Your task to perform on an android device: Open the web browser Image 0: 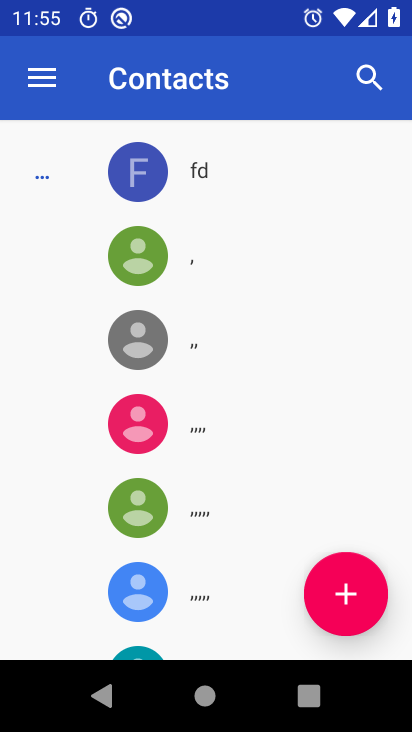
Step 0: press home button
Your task to perform on an android device: Open the web browser Image 1: 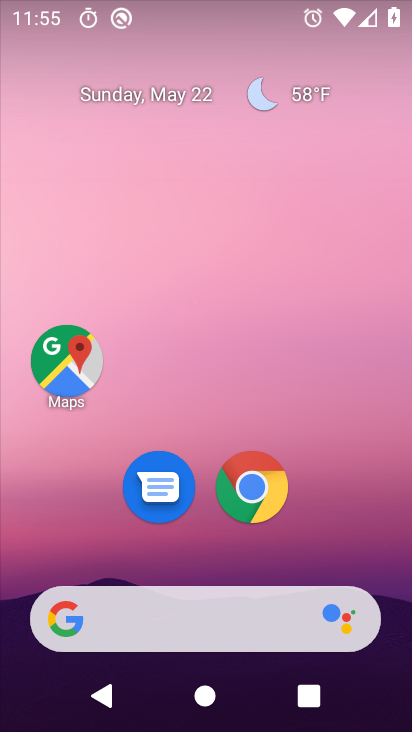
Step 1: drag from (359, 524) to (359, 204)
Your task to perform on an android device: Open the web browser Image 2: 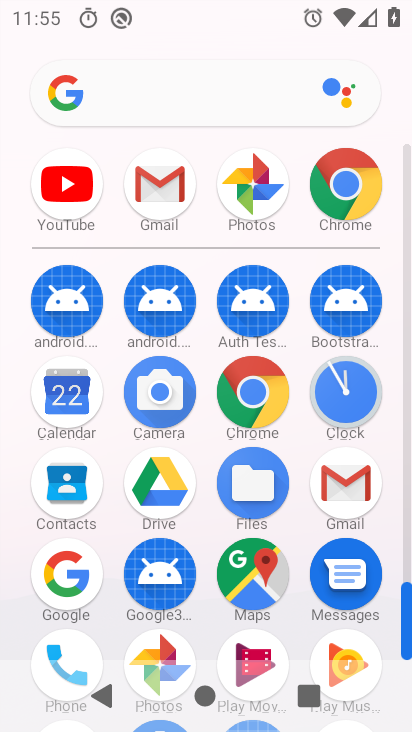
Step 2: click (320, 189)
Your task to perform on an android device: Open the web browser Image 3: 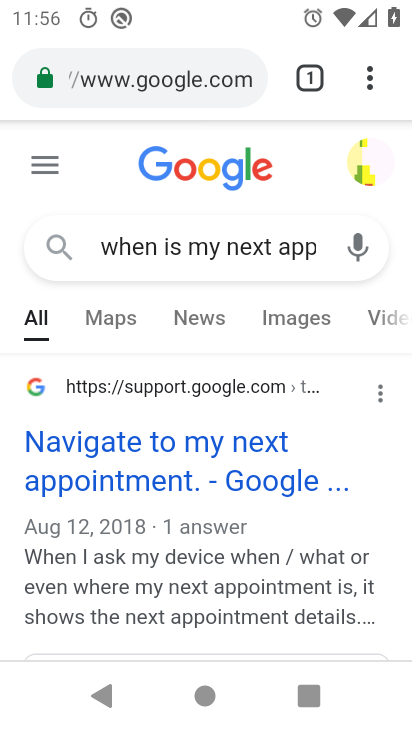
Step 3: task complete